Your task to perform on an android device: change the clock display to show seconds Image 0: 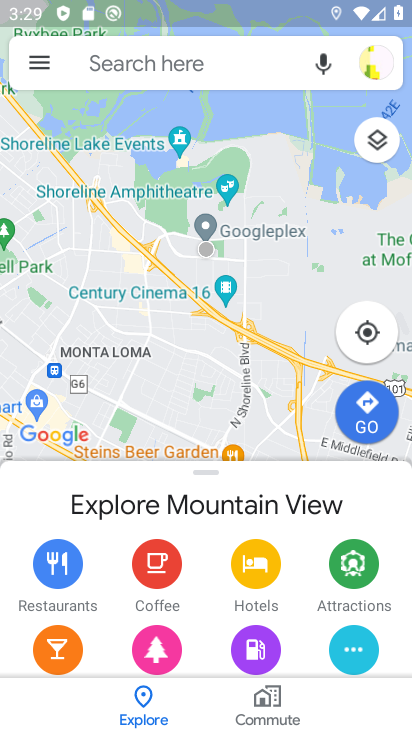
Step 0: press home button
Your task to perform on an android device: change the clock display to show seconds Image 1: 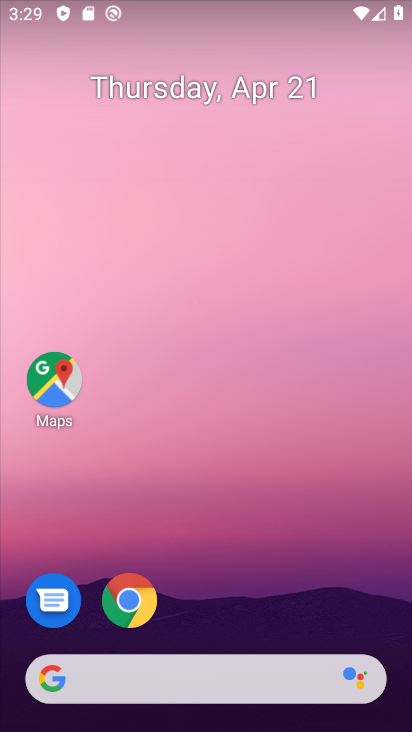
Step 1: drag from (253, 613) to (275, 77)
Your task to perform on an android device: change the clock display to show seconds Image 2: 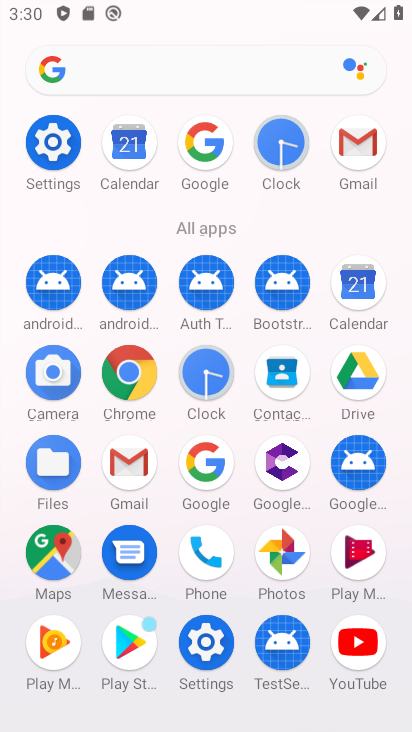
Step 2: click (281, 141)
Your task to perform on an android device: change the clock display to show seconds Image 3: 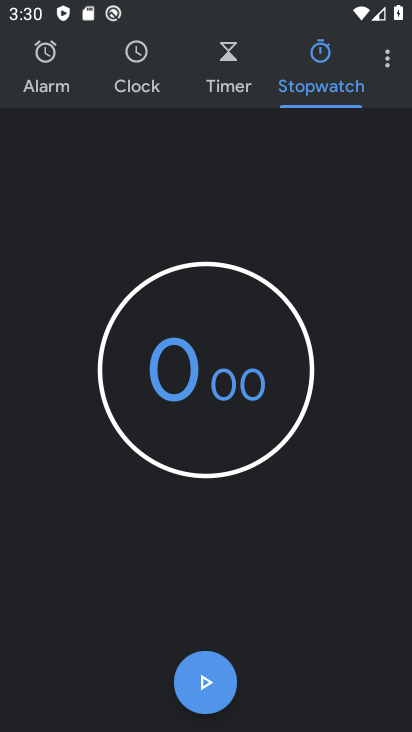
Step 3: click (390, 60)
Your task to perform on an android device: change the clock display to show seconds Image 4: 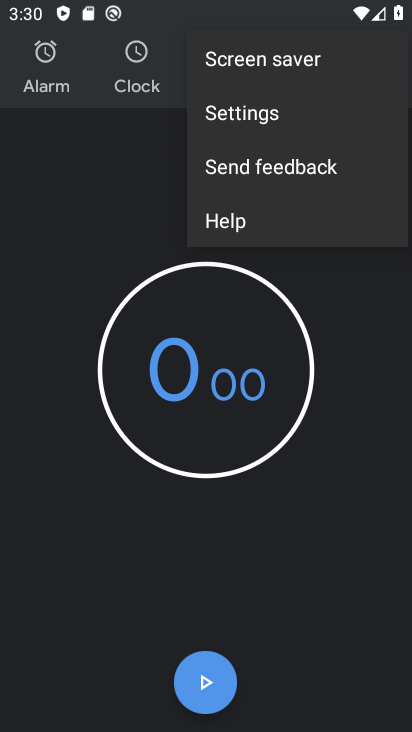
Step 4: click (279, 122)
Your task to perform on an android device: change the clock display to show seconds Image 5: 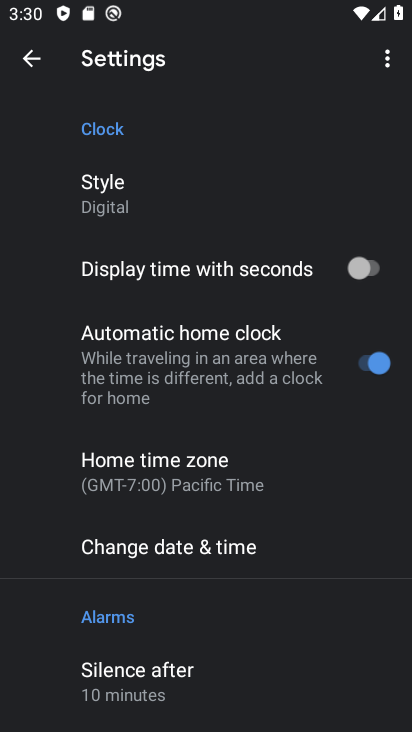
Step 5: click (371, 269)
Your task to perform on an android device: change the clock display to show seconds Image 6: 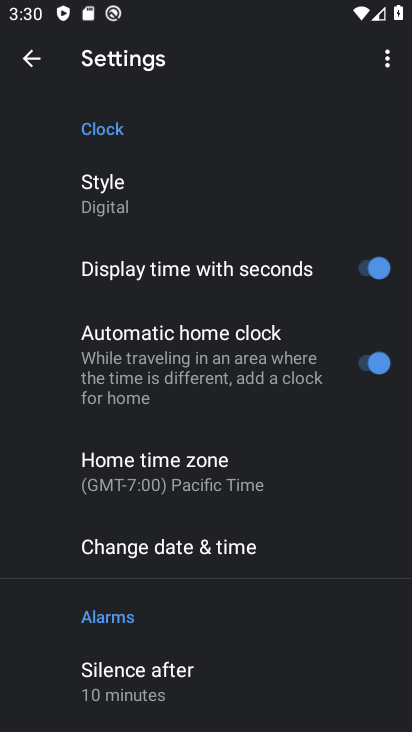
Step 6: task complete